Your task to perform on an android device: move an email to a new category in the gmail app Image 0: 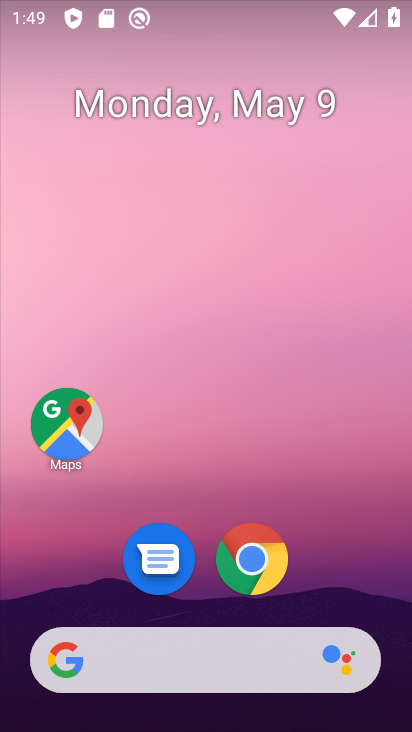
Step 0: drag from (337, 560) to (339, 161)
Your task to perform on an android device: move an email to a new category in the gmail app Image 1: 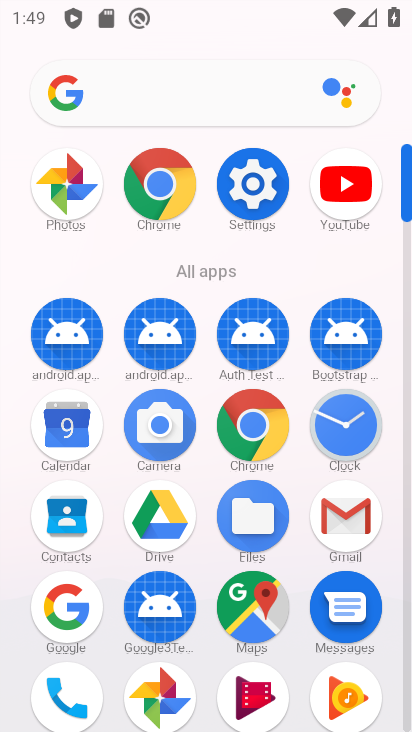
Step 1: click (337, 524)
Your task to perform on an android device: move an email to a new category in the gmail app Image 2: 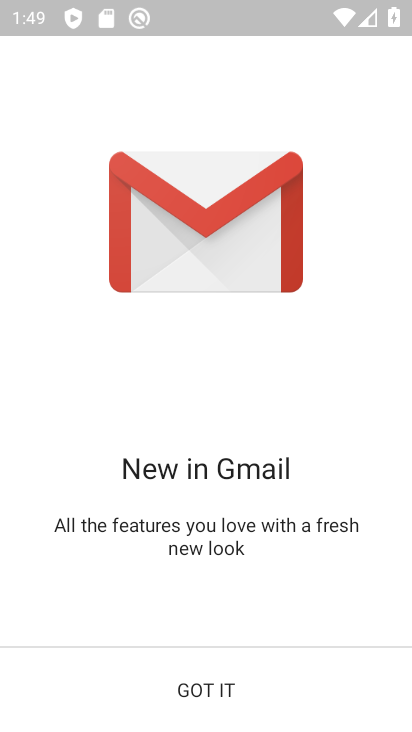
Step 2: click (191, 674)
Your task to perform on an android device: move an email to a new category in the gmail app Image 3: 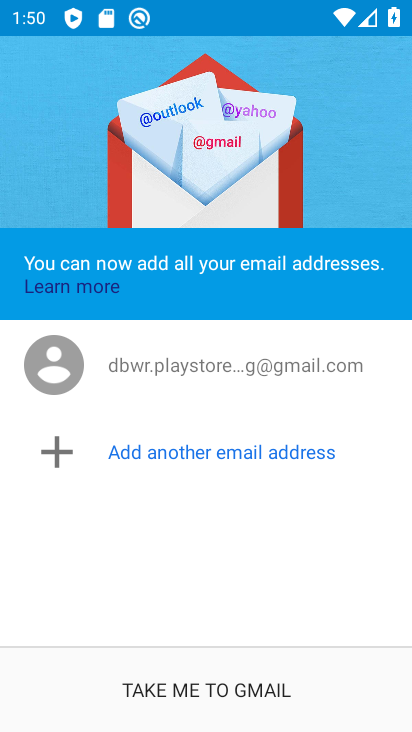
Step 3: click (223, 686)
Your task to perform on an android device: move an email to a new category in the gmail app Image 4: 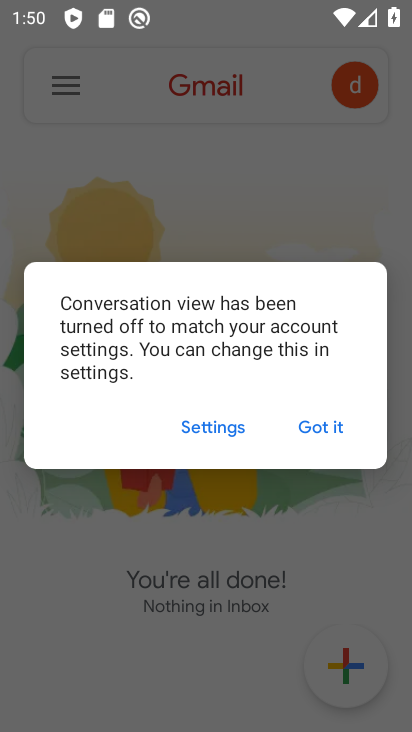
Step 4: click (346, 441)
Your task to perform on an android device: move an email to a new category in the gmail app Image 5: 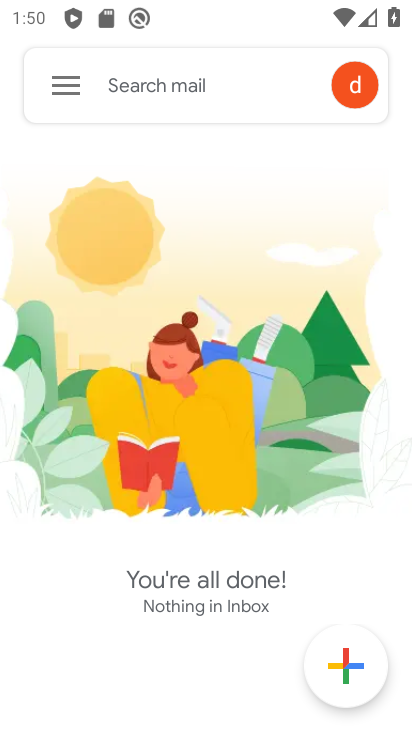
Step 5: click (70, 80)
Your task to perform on an android device: move an email to a new category in the gmail app Image 6: 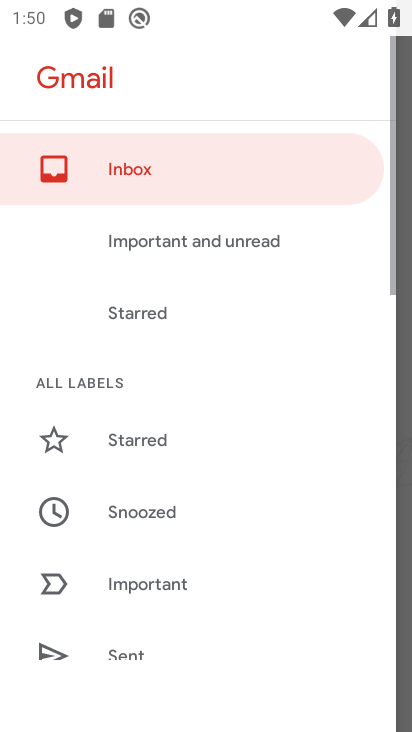
Step 6: drag from (169, 705) to (236, 354)
Your task to perform on an android device: move an email to a new category in the gmail app Image 7: 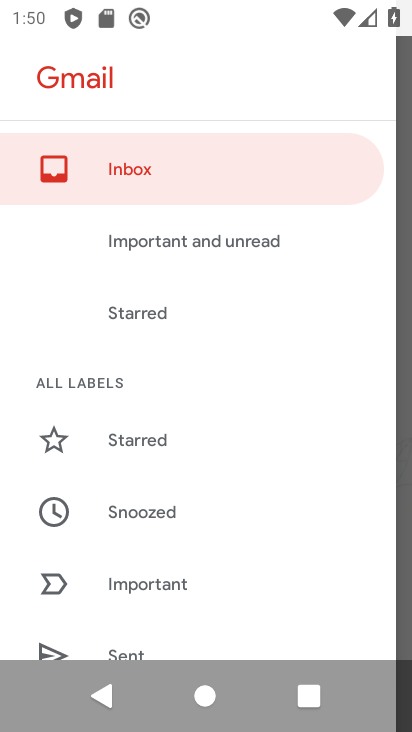
Step 7: drag from (253, 586) to (279, 239)
Your task to perform on an android device: move an email to a new category in the gmail app Image 8: 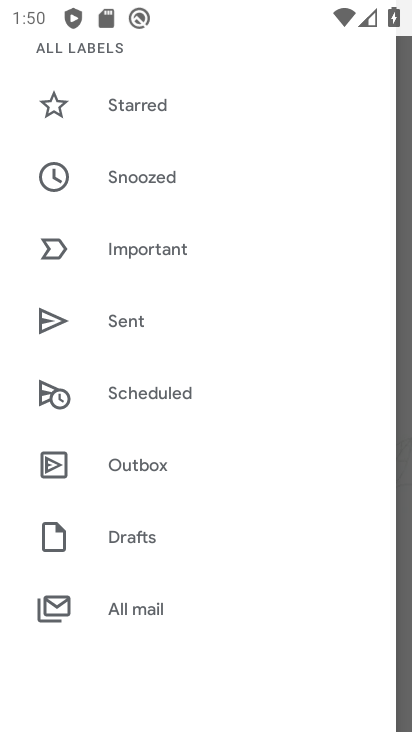
Step 8: click (171, 597)
Your task to perform on an android device: move an email to a new category in the gmail app Image 9: 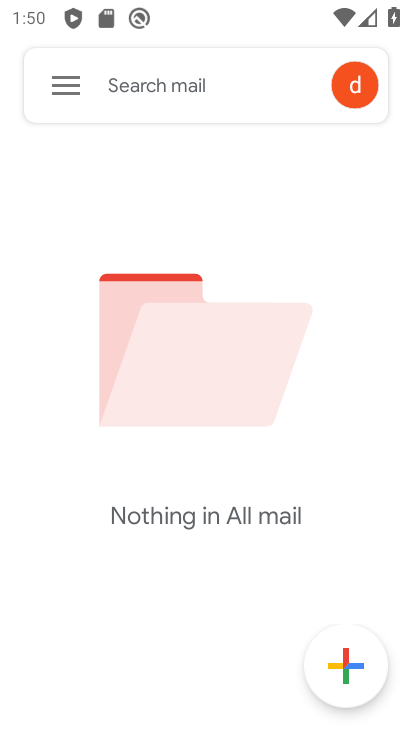
Step 9: task complete